Your task to perform on an android device: Go to Yahoo.com Image 0: 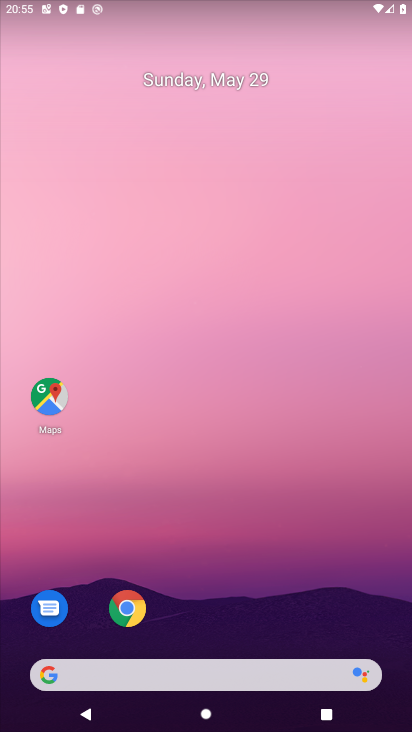
Step 0: drag from (378, 624) to (380, 242)
Your task to perform on an android device: Go to Yahoo.com Image 1: 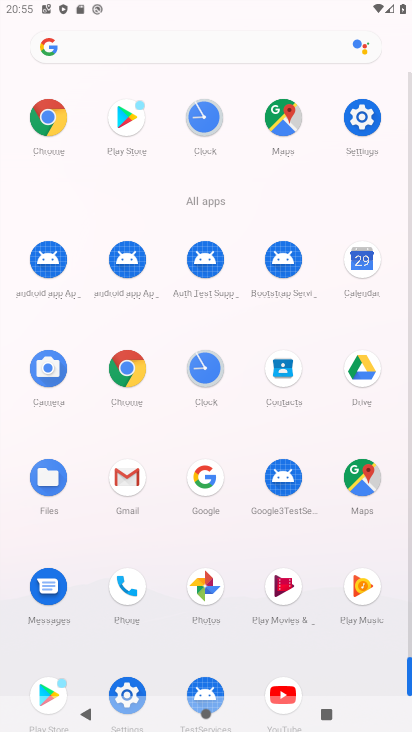
Step 1: click (135, 376)
Your task to perform on an android device: Go to Yahoo.com Image 2: 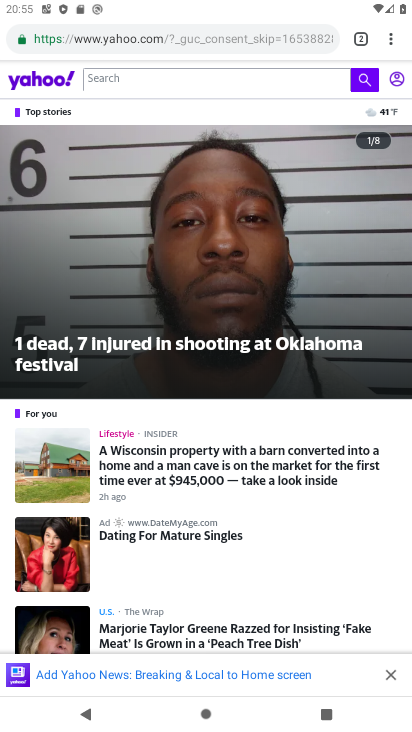
Step 2: task complete